Your task to perform on an android device: Go to privacy settings Image 0: 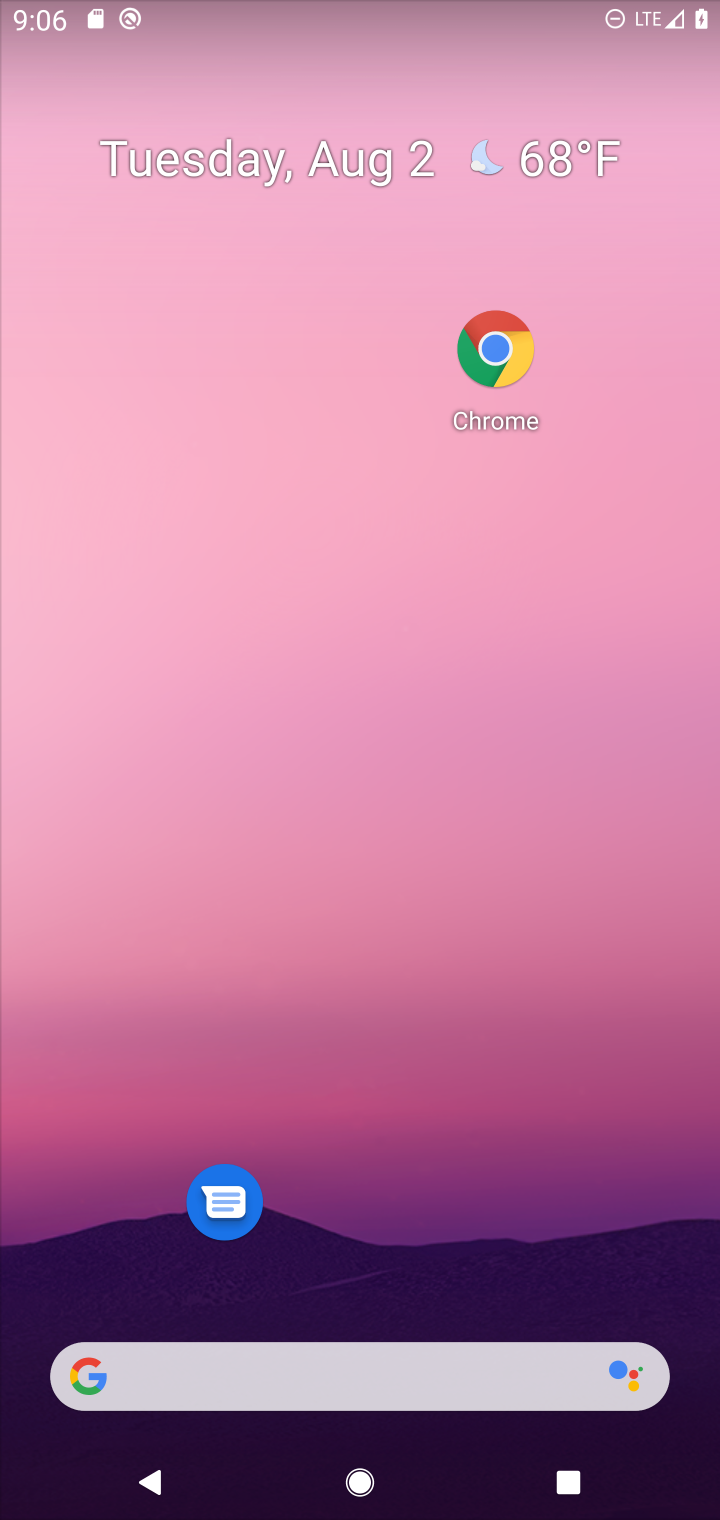
Step 0: drag from (413, 1277) to (400, 42)
Your task to perform on an android device: Go to privacy settings Image 1: 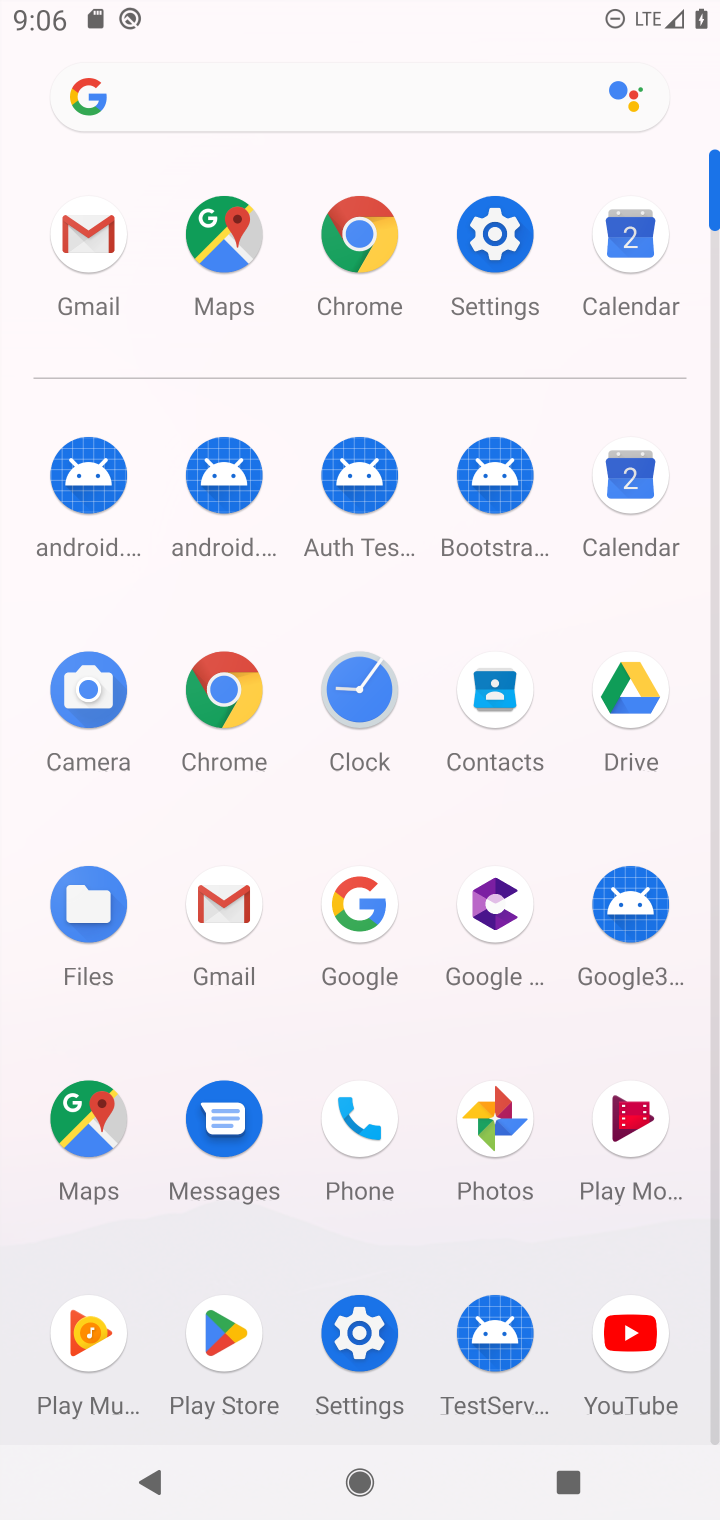
Step 1: click (513, 239)
Your task to perform on an android device: Go to privacy settings Image 2: 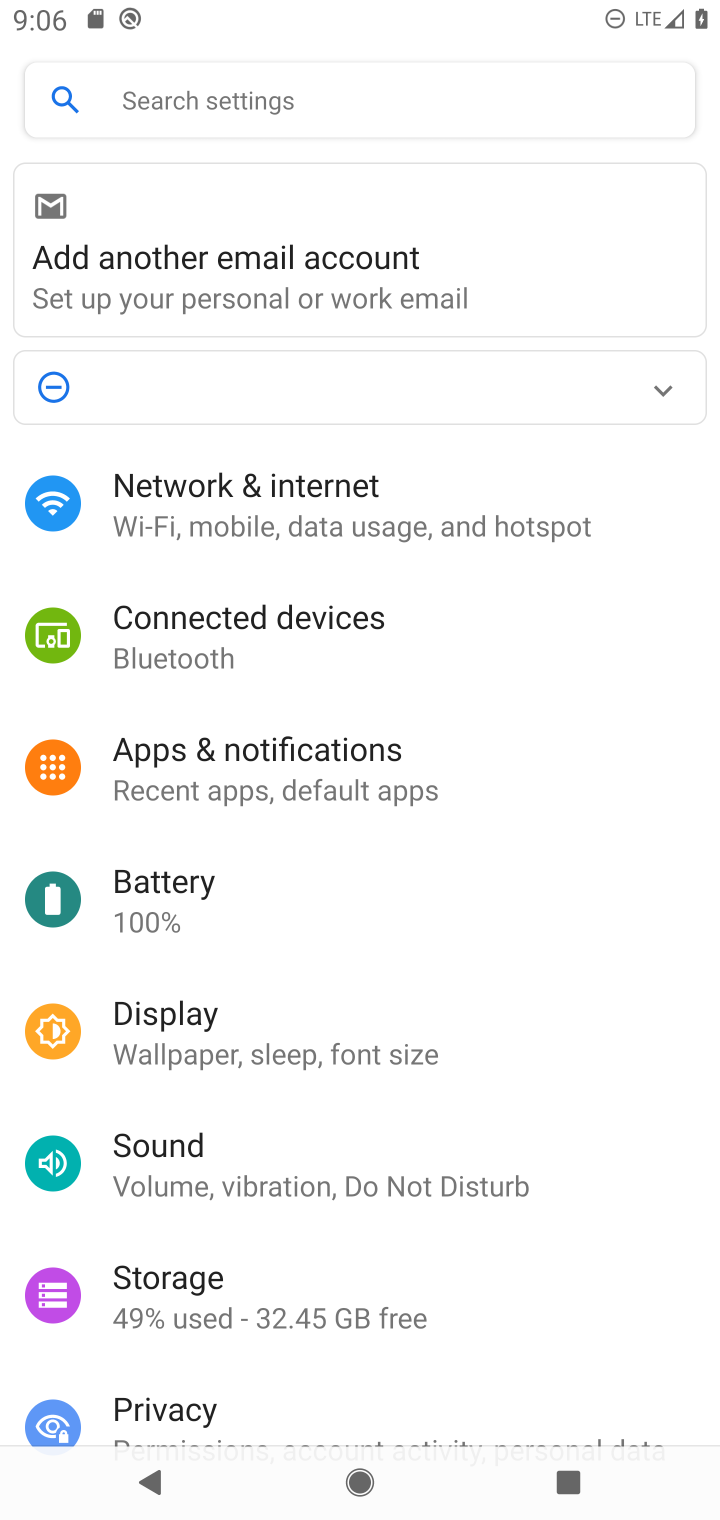
Step 2: click (156, 1405)
Your task to perform on an android device: Go to privacy settings Image 3: 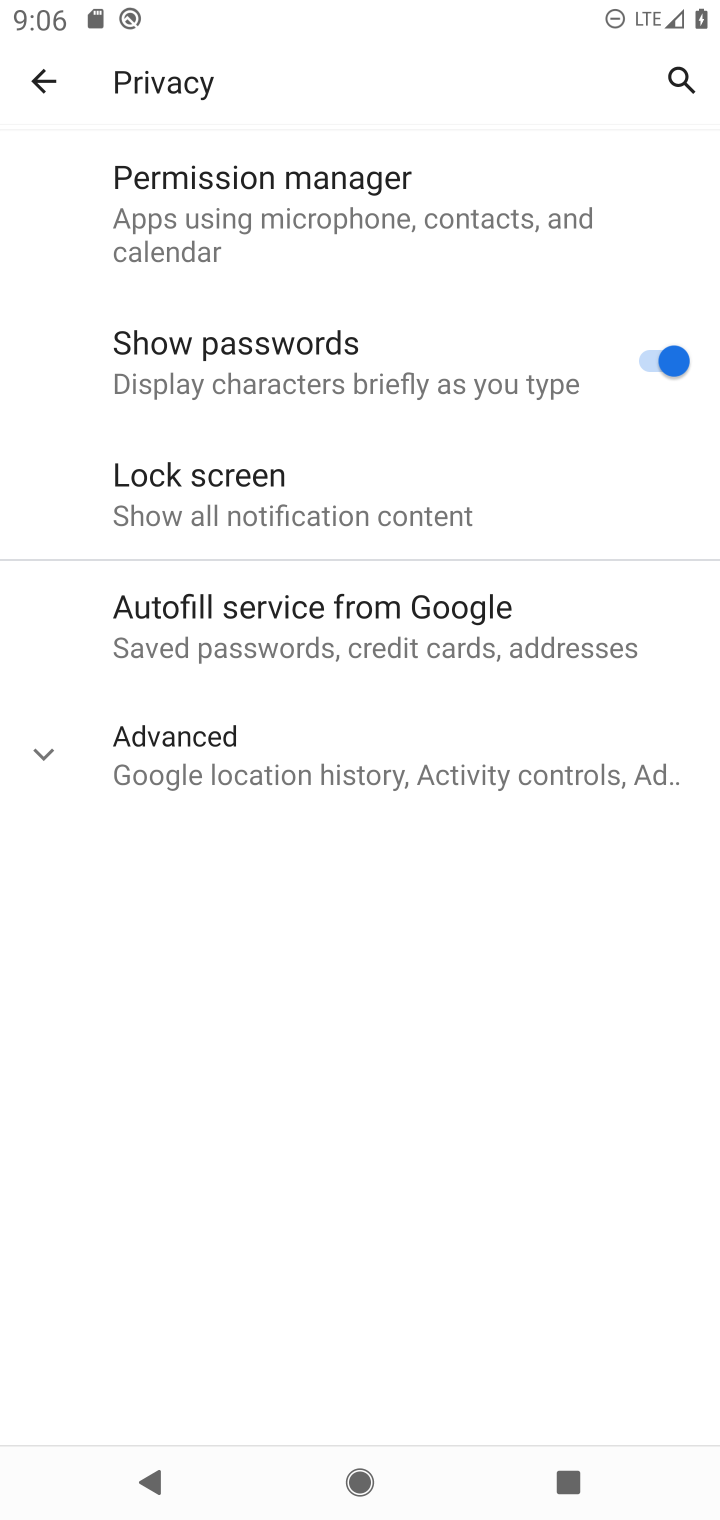
Step 3: task complete